Your task to perform on an android device: Open maps Image 0: 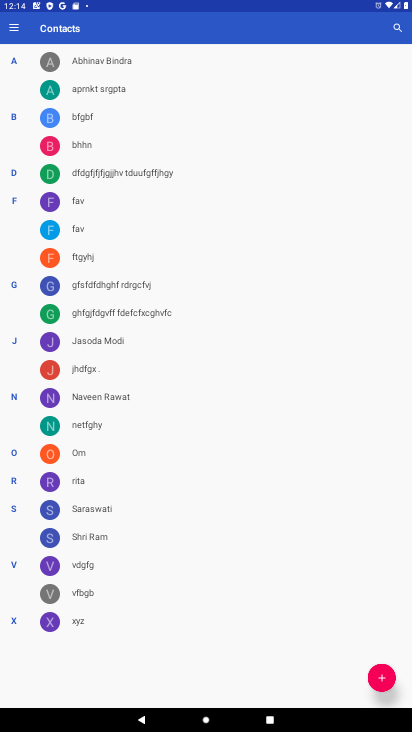
Step 0: press home button
Your task to perform on an android device: Open maps Image 1: 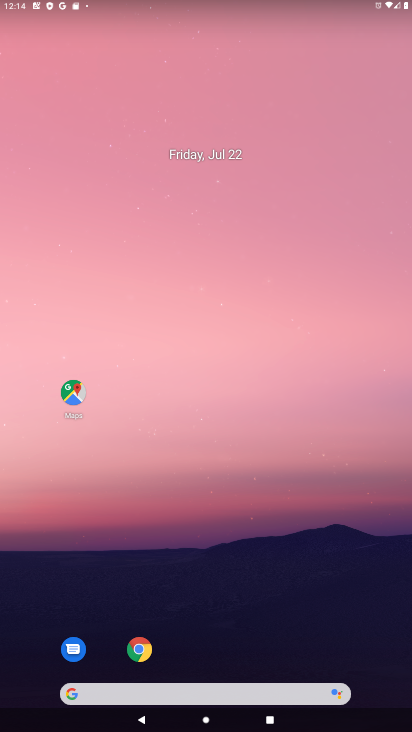
Step 1: drag from (292, 614) to (269, 24)
Your task to perform on an android device: Open maps Image 2: 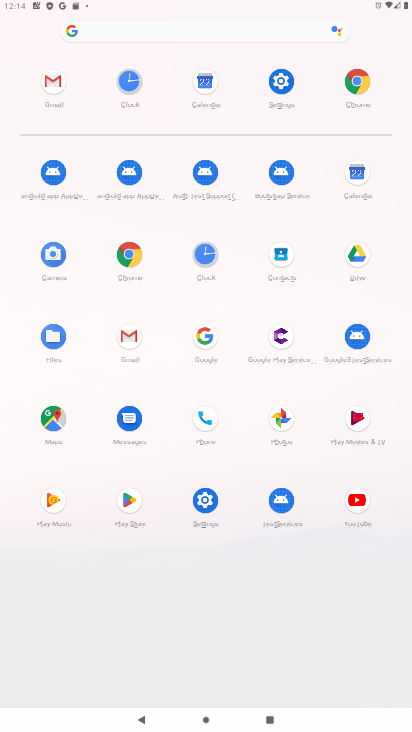
Step 2: click (52, 416)
Your task to perform on an android device: Open maps Image 3: 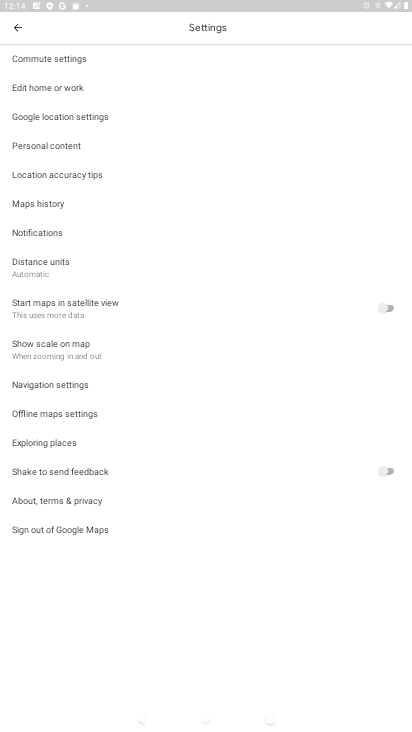
Step 3: task complete